Your task to perform on an android device: add a contact in the contacts app Image 0: 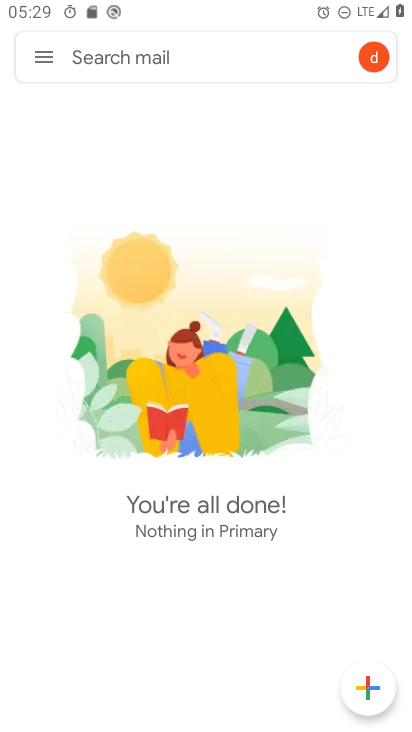
Step 0: press home button
Your task to perform on an android device: add a contact in the contacts app Image 1: 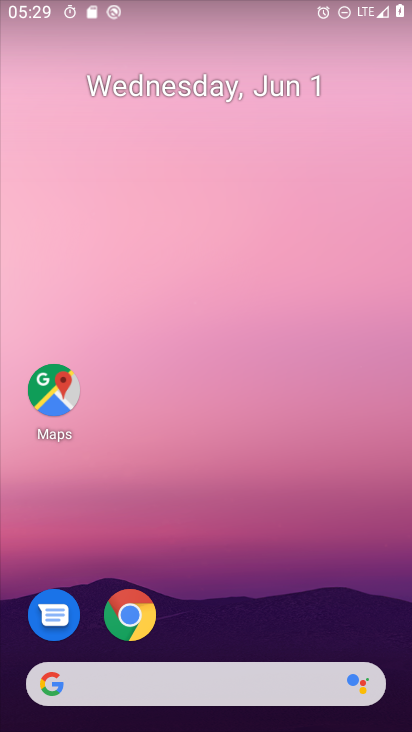
Step 1: drag from (233, 699) to (282, 9)
Your task to perform on an android device: add a contact in the contacts app Image 2: 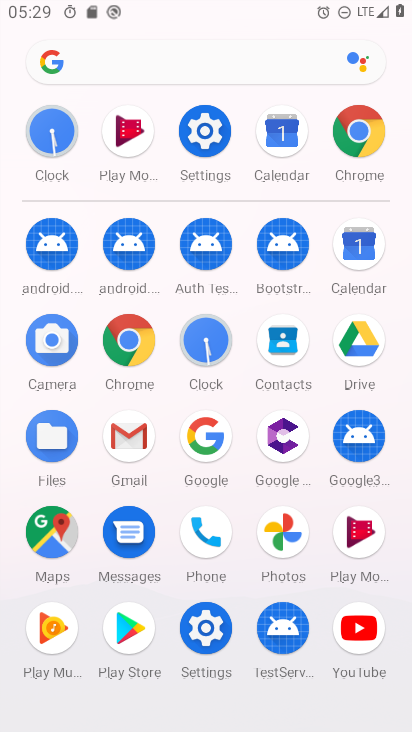
Step 2: click (290, 339)
Your task to perform on an android device: add a contact in the contacts app Image 3: 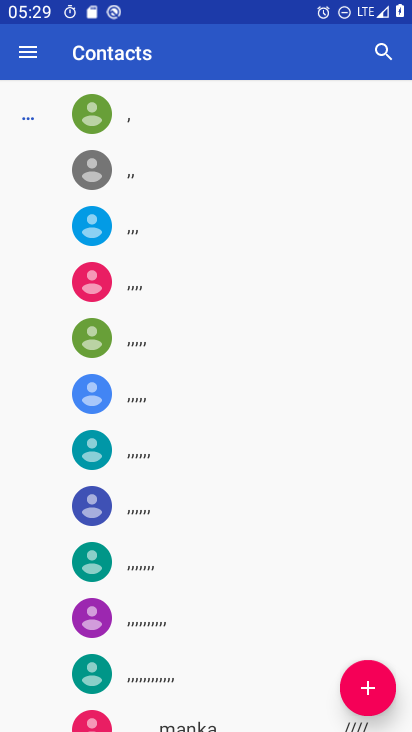
Step 3: click (361, 687)
Your task to perform on an android device: add a contact in the contacts app Image 4: 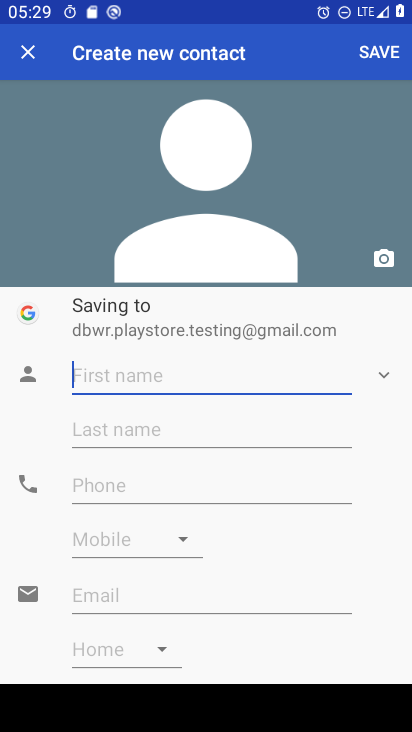
Step 4: type "hhjggjdshik"
Your task to perform on an android device: add a contact in the contacts app Image 5: 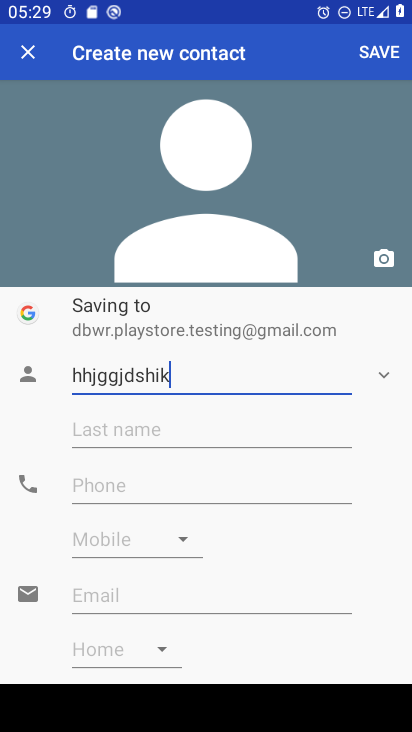
Step 5: click (169, 491)
Your task to perform on an android device: add a contact in the contacts app Image 6: 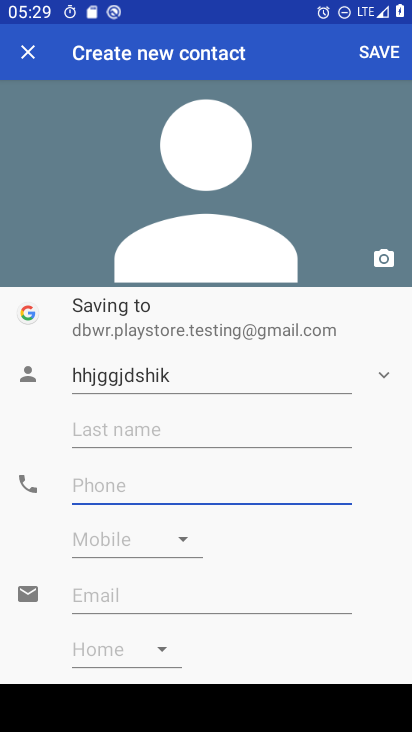
Step 6: type "9876577886"
Your task to perform on an android device: add a contact in the contacts app Image 7: 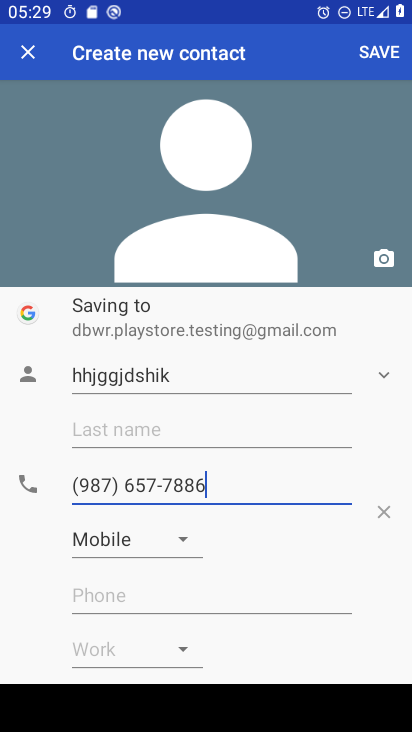
Step 7: click (379, 44)
Your task to perform on an android device: add a contact in the contacts app Image 8: 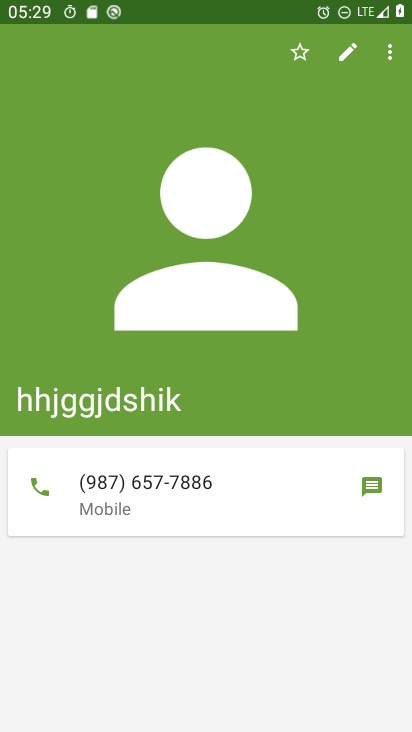
Step 8: task complete